Your task to perform on an android device: Clear all items from cart on costco. Image 0: 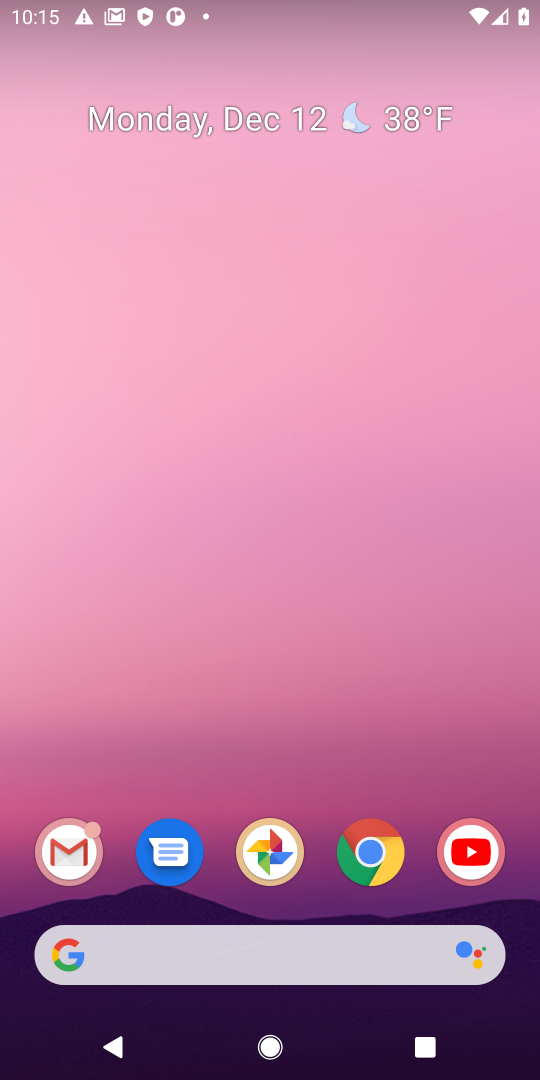
Step 0: drag from (290, 924) to (307, 18)
Your task to perform on an android device: Clear all items from cart on costco. Image 1: 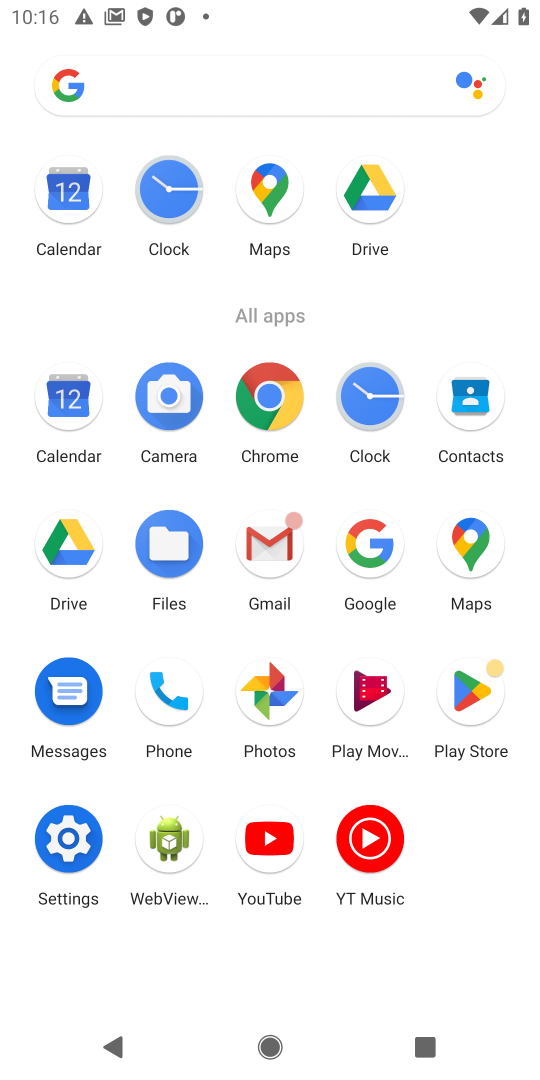
Step 1: click (383, 546)
Your task to perform on an android device: Clear all items from cart on costco. Image 2: 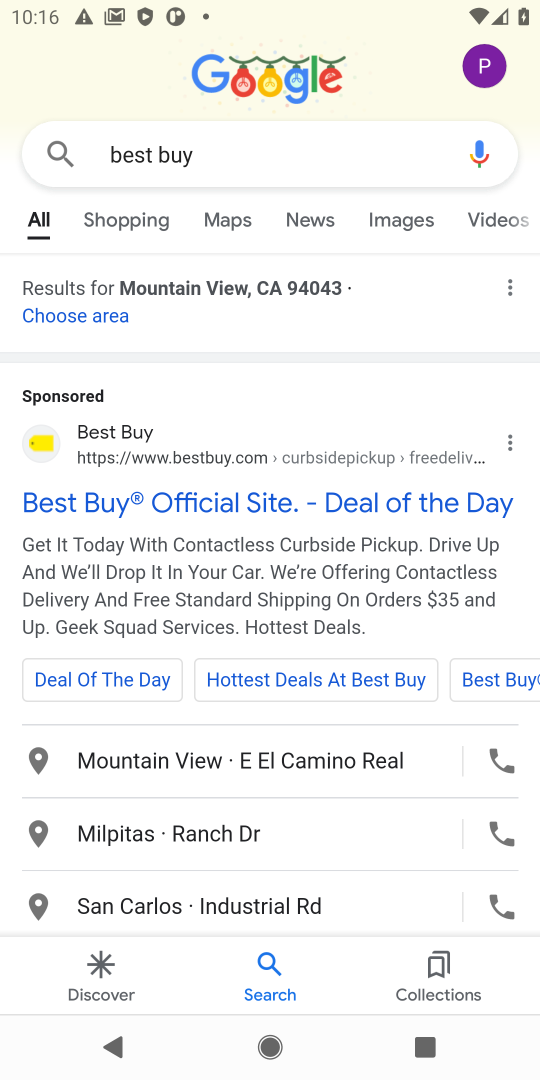
Step 2: click (186, 149)
Your task to perform on an android device: Clear all items from cart on costco. Image 3: 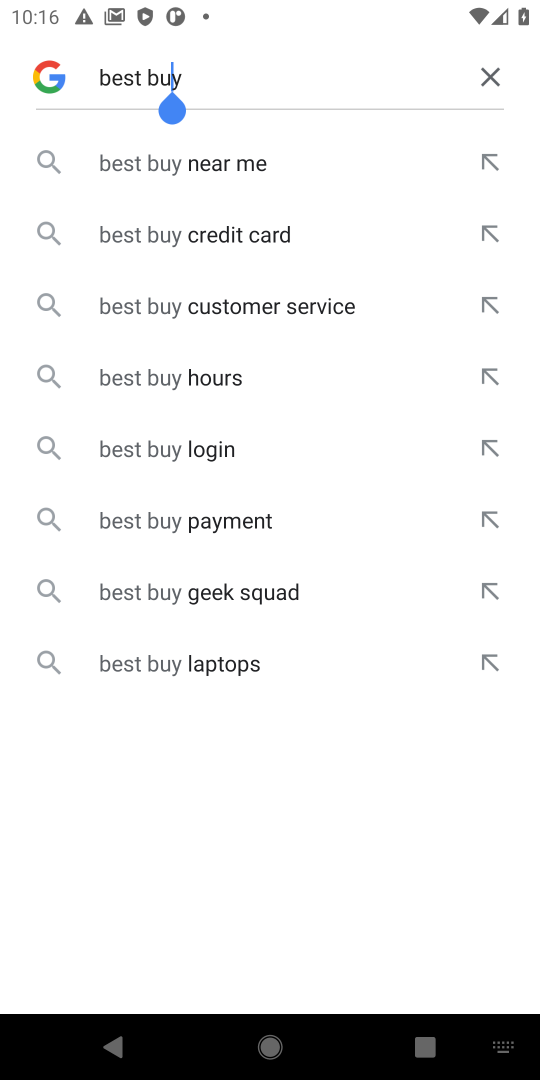
Step 3: click (483, 81)
Your task to perform on an android device: Clear all items from cart on costco. Image 4: 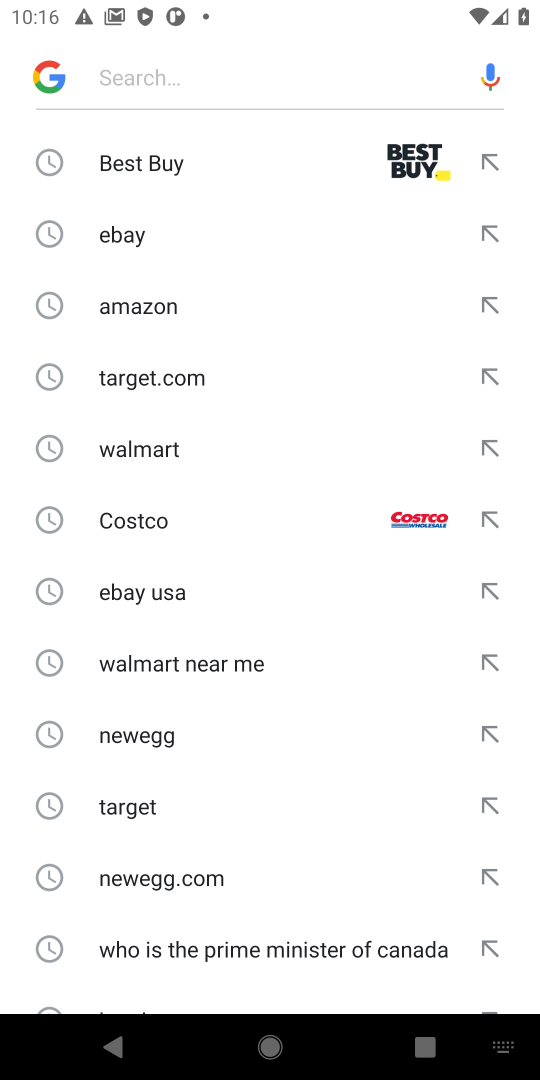
Step 4: click (140, 526)
Your task to perform on an android device: Clear all items from cart on costco. Image 5: 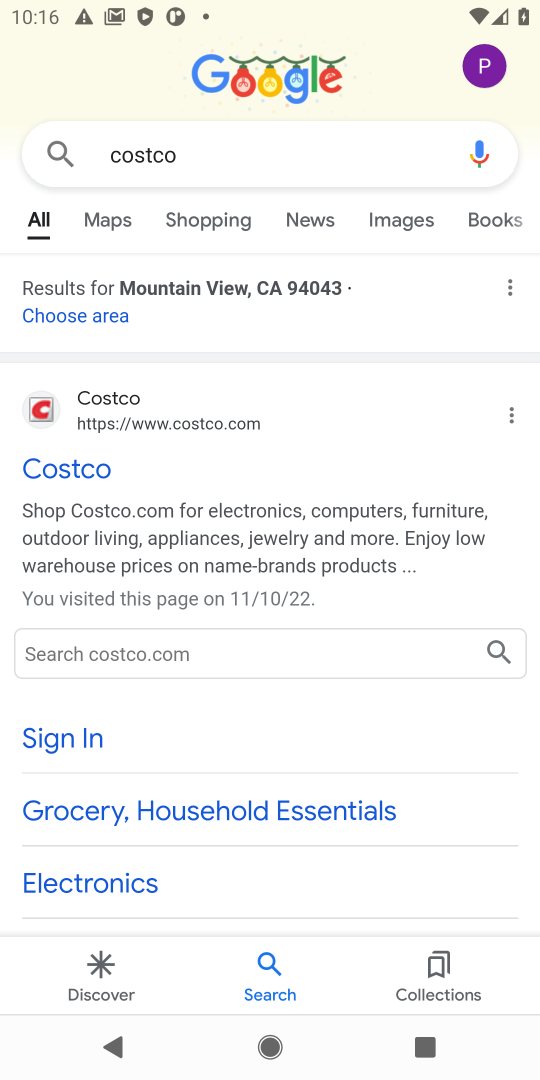
Step 5: click (79, 469)
Your task to perform on an android device: Clear all items from cart on costco. Image 6: 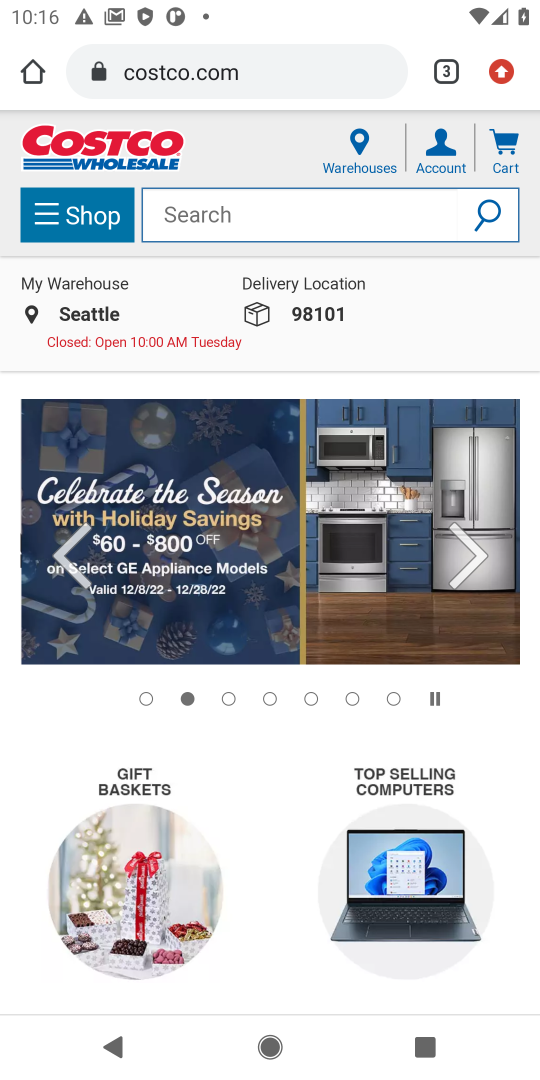
Step 6: click (499, 150)
Your task to perform on an android device: Clear all items from cart on costco. Image 7: 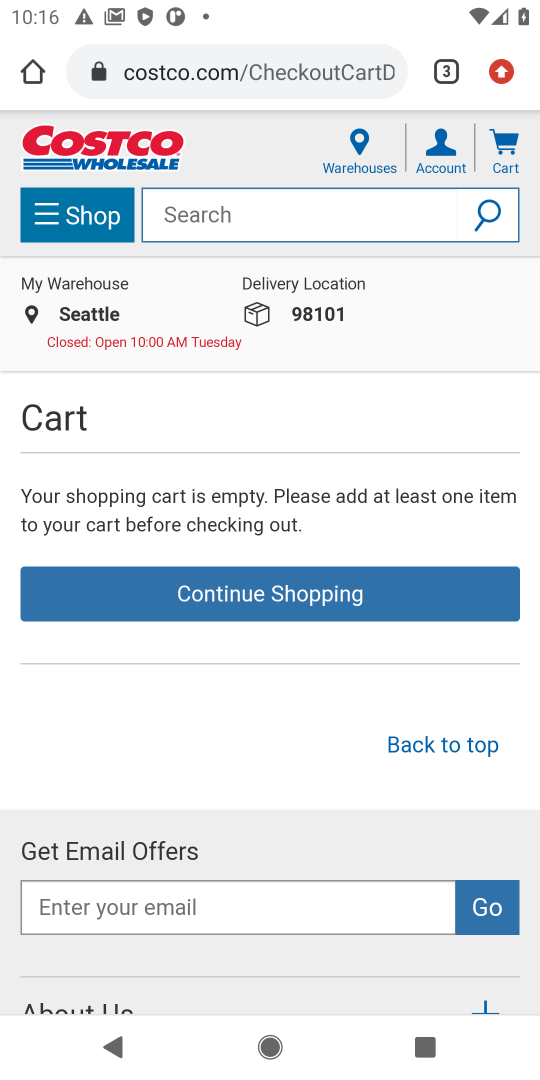
Step 7: task complete